Your task to perform on an android device: change your default location settings in chrome Image 0: 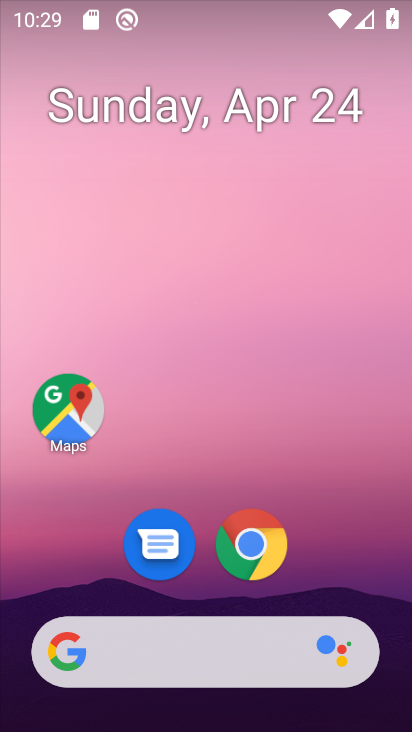
Step 0: click (257, 544)
Your task to perform on an android device: change your default location settings in chrome Image 1: 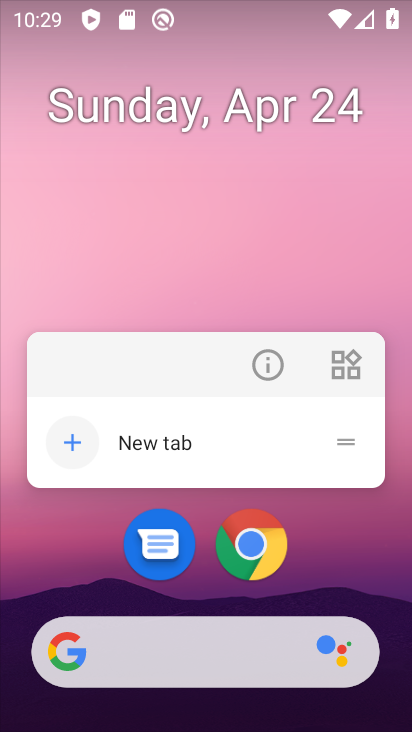
Step 1: click (257, 544)
Your task to perform on an android device: change your default location settings in chrome Image 2: 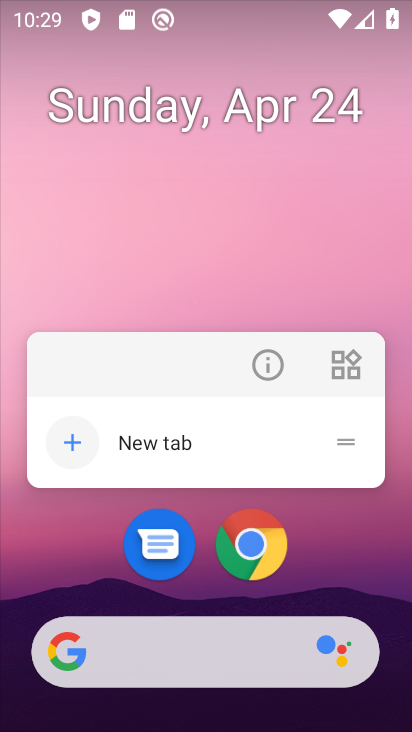
Step 2: click (264, 548)
Your task to perform on an android device: change your default location settings in chrome Image 3: 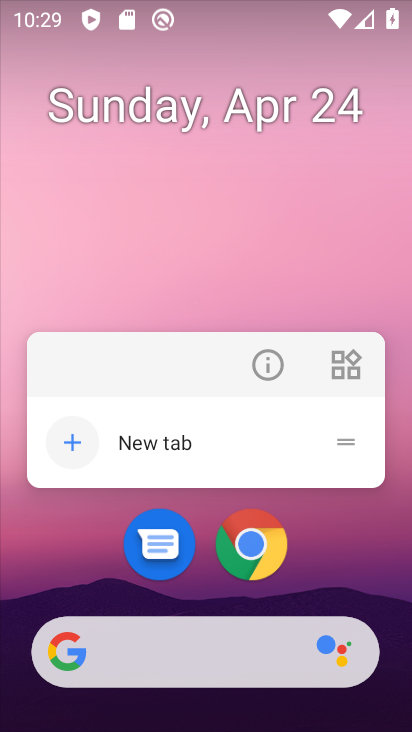
Step 3: click (264, 548)
Your task to perform on an android device: change your default location settings in chrome Image 4: 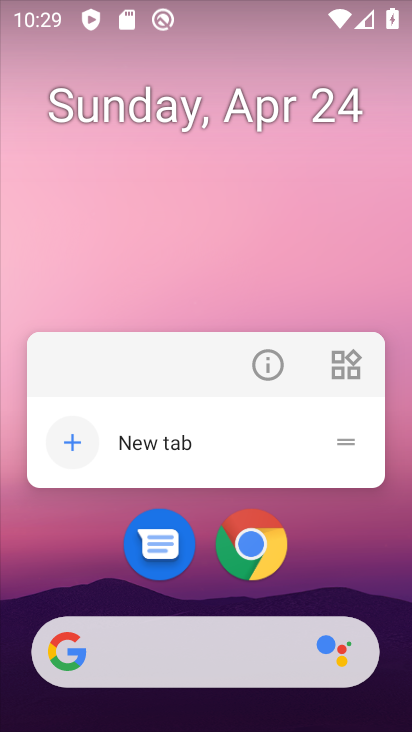
Step 4: click (255, 547)
Your task to perform on an android device: change your default location settings in chrome Image 5: 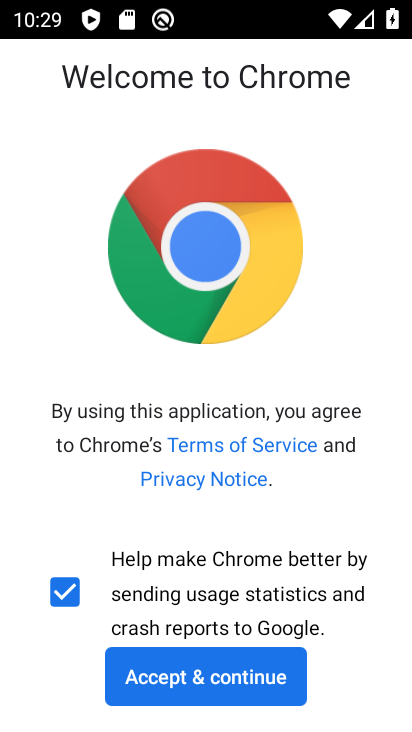
Step 5: click (209, 680)
Your task to perform on an android device: change your default location settings in chrome Image 6: 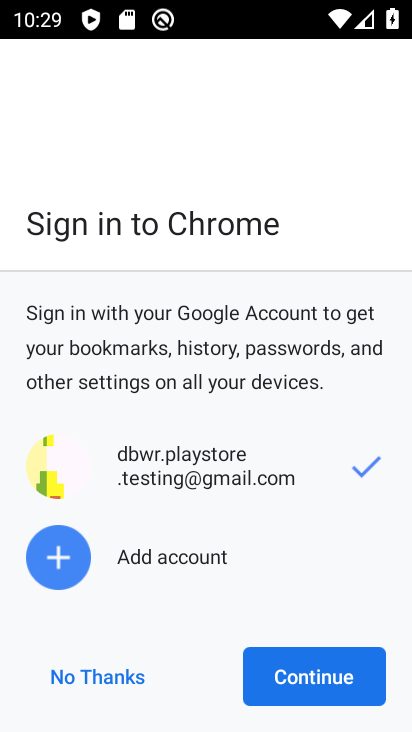
Step 6: click (209, 680)
Your task to perform on an android device: change your default location settings in chrome Image 7: 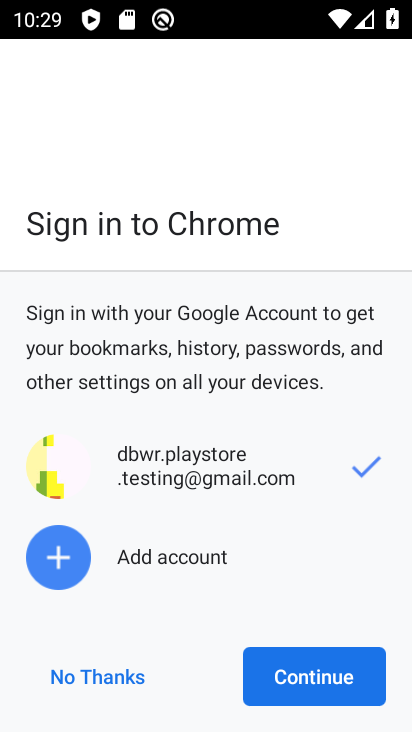
Step 7: click (287, 675)
Your task to perform on an android device: change your default location settings in chrome Image 8: 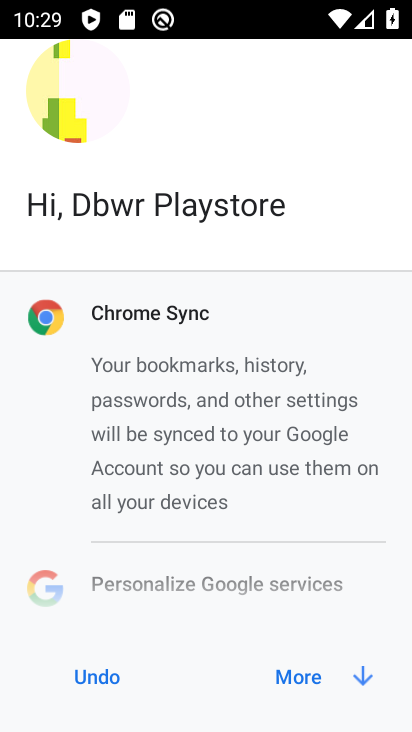
Step 8: click (300, 670)
Your task to perform on an android device: change your default location settings in chrome Image 9: 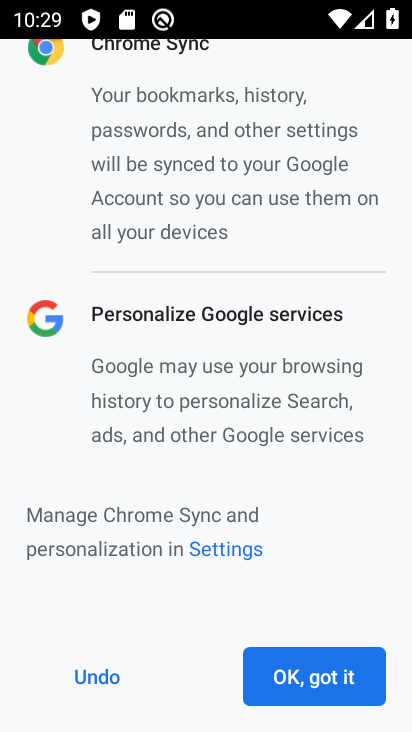
Step 9: click (312, 677)
Your task to perform on an android device: change your default location settings in chrome Image 10: 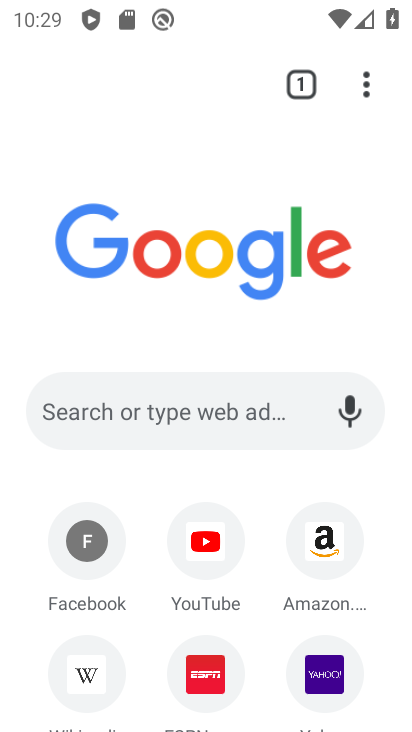
Step 10: drag from (367, 90) to (140, 580)
Your task to perform on an android device: change your default location settings in chrome Image 11: 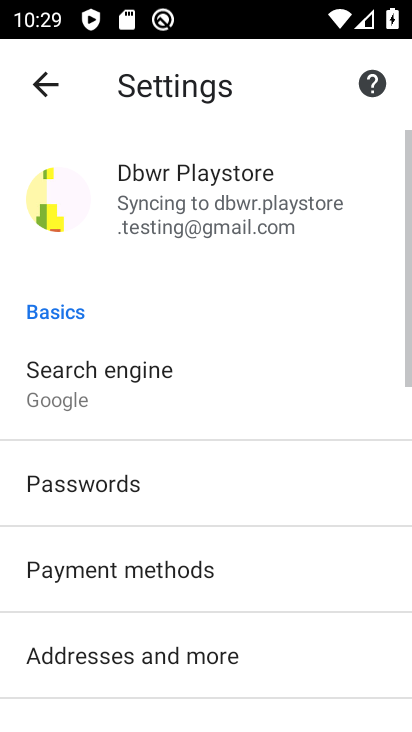
Step 11: drag from (322, 583) to (290, 151)
Your task to perform on an android device: change your default location settings in chrome Image 12: 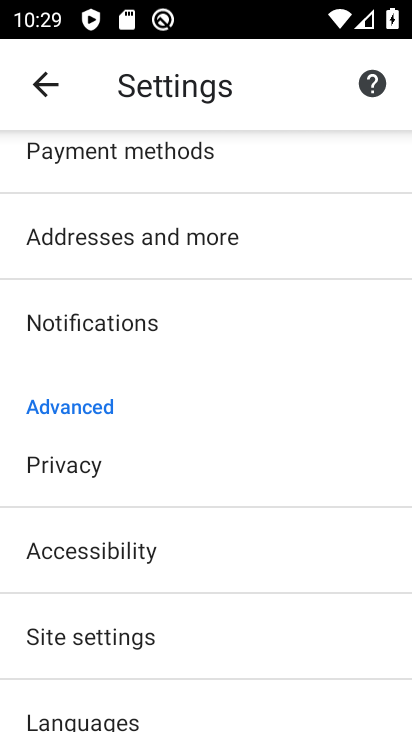
Step 12: click (117, 635)
Your task to perform on an android device: change your default location settings in chrome Image 13: 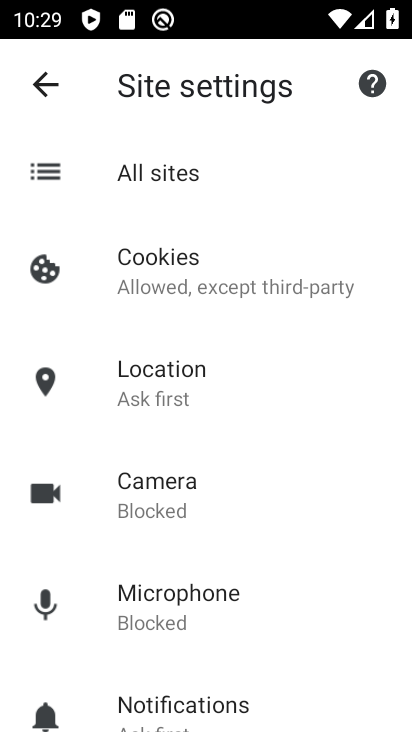
Step 13: click (177, 382)
Your task to perform on an android device: change your default location settings in chrome Image 14: 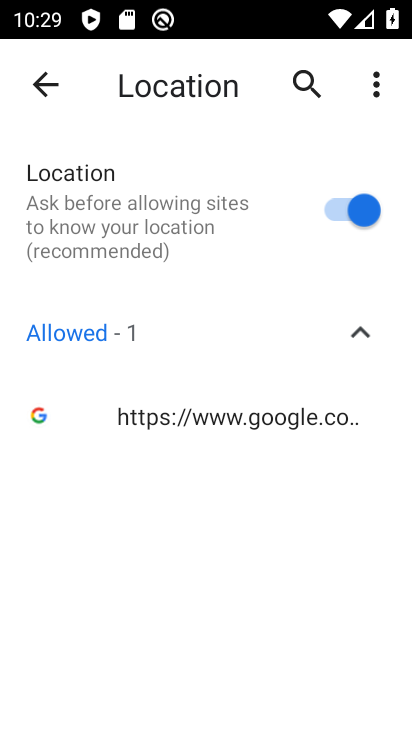
Step 14: click (379, 210)
Your task to perform on an android device: change your default location settings in chrome Image 15: 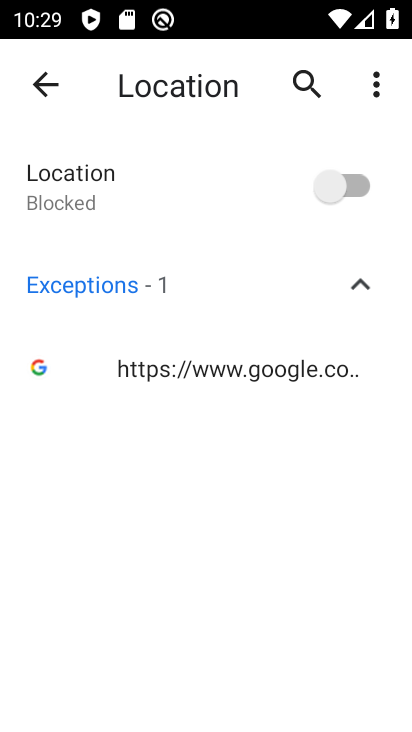
Step 15: task complete